Your task to perform on an android device: Turn on the flashlight Image 0: 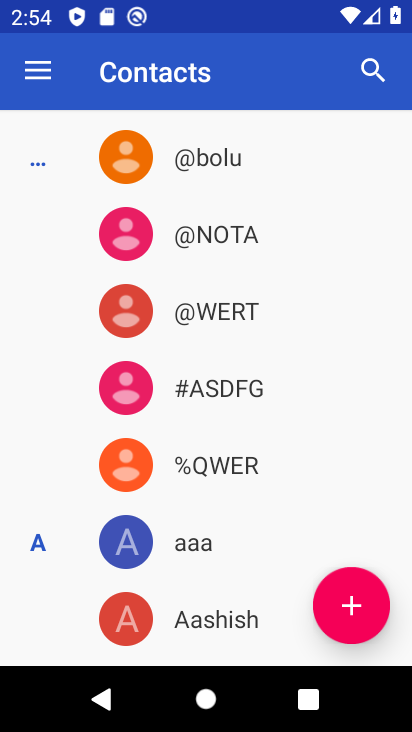
Step 0: press back button
Your task to perform on an android device: Turn on the flashlight Image 1: 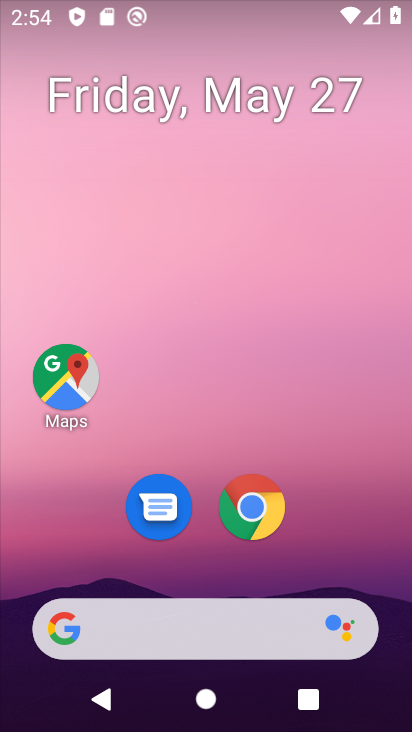
Step 1: drag from (214, 556) to (241, 114)
Your task to perform on an android device: Turn on the flashlight Image 2: 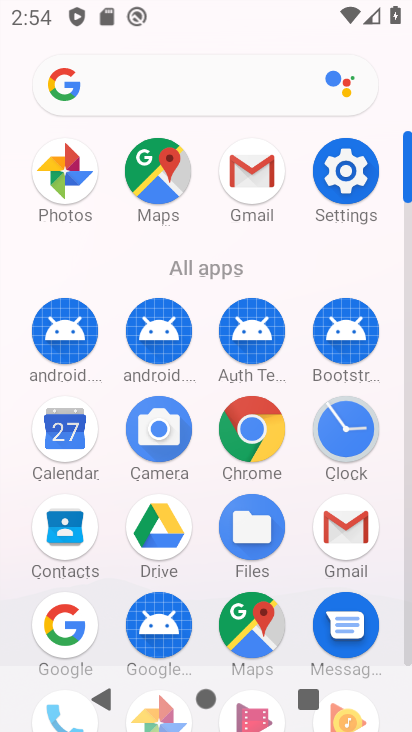
Step 2: click (346, 171)
Your task to perform on an android device: Turn on the flashlight Image 3: 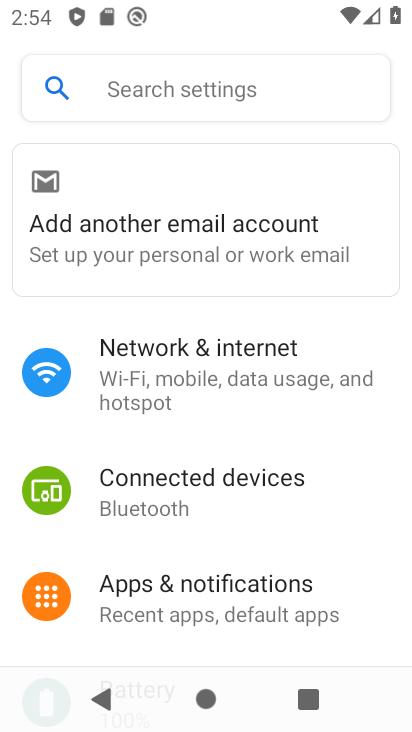
Step 3: drag from (192, 553) to (260, 109)
Your task to perform on an android device: Turn on the flashlight Image 4: 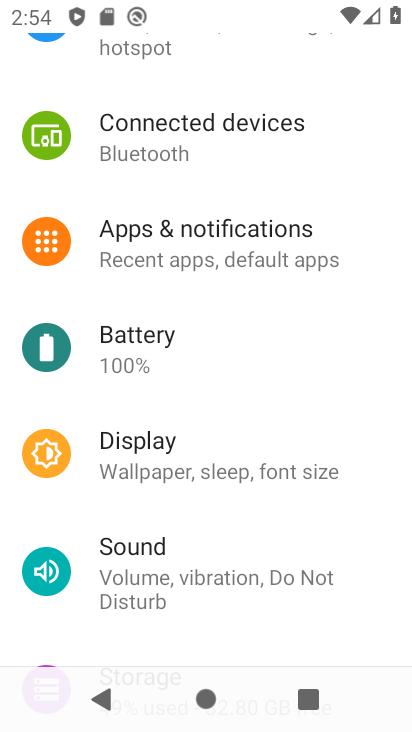
Step 4: drag from (249, 186) to (178, 725)
Your task to perform on an android device: Turn on the flashlight Image 5: 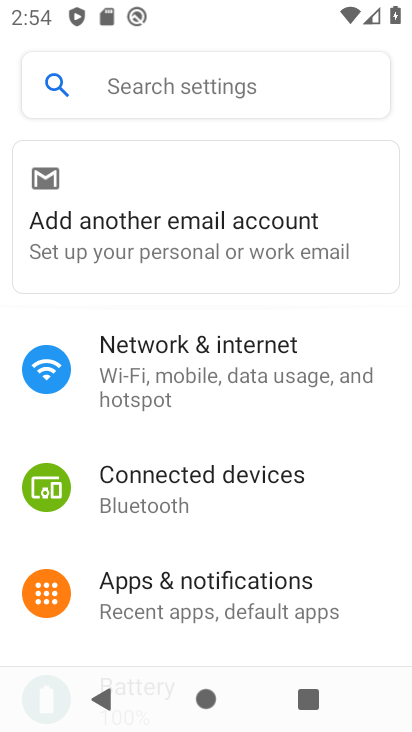
Step 5: click (165, 104)
Your task to perform on an android device: Turn on the flashlight Image 6: 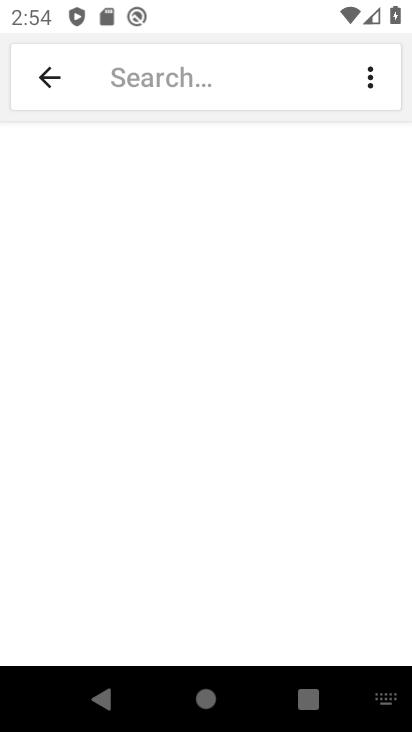
Step 6: type "flashlight"
Your task to perform on an android device: Turn on the flashlight Image 7: 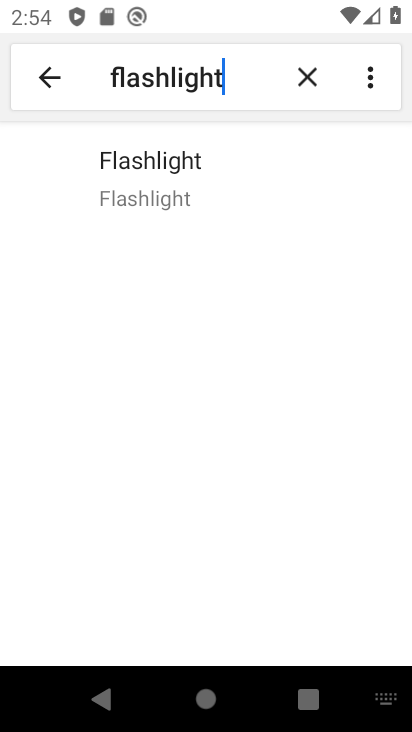
Step 7: click (141, 175)
Your task to perform on an android device: Turn on the flashlight Image 8: 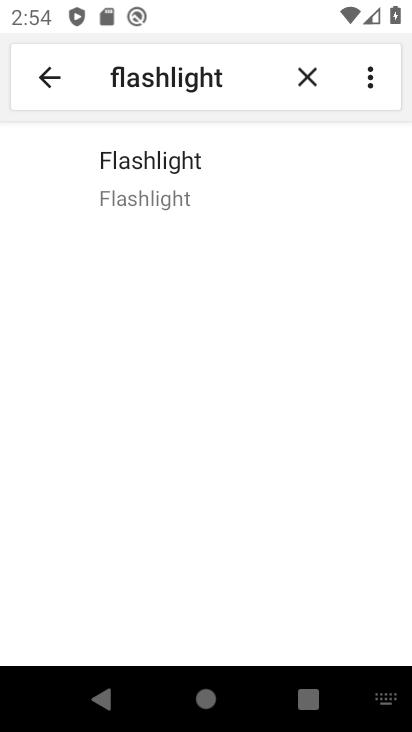
Step 8: task complete